Your task to perform on an android device: turn on improve location accuracy Image 0: 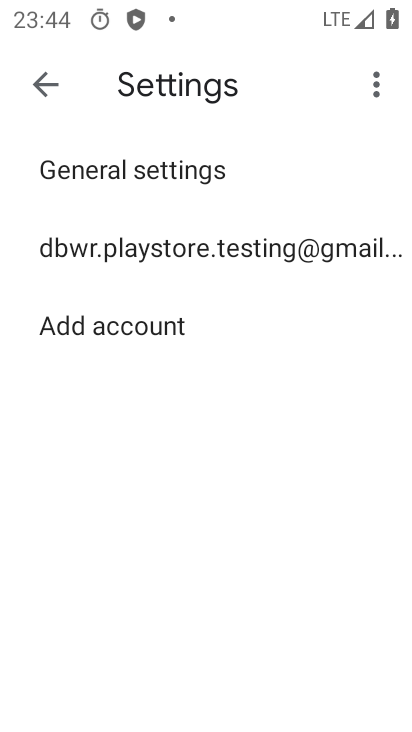
Step 0: press home button
Your task to perform on an android device: turn on improve location accuracy Image 1: 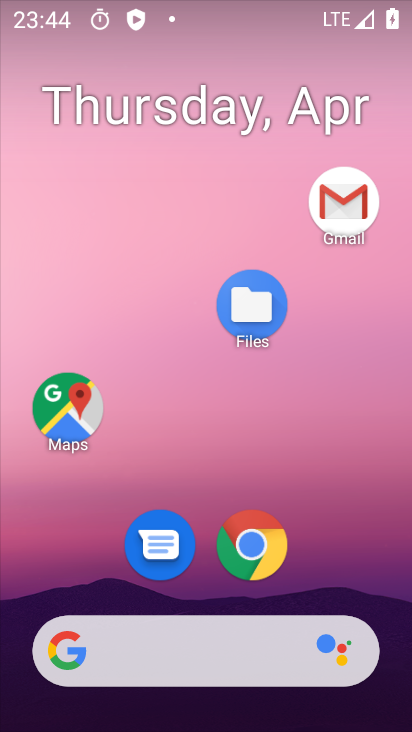
Step 1: drag from (329, 492) to (270, 11)
Your task to perform on an android device: turn on improve location accuracy Image 2: 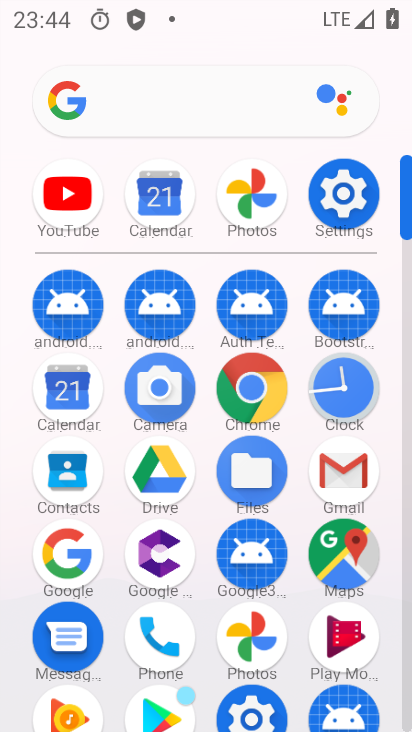
Step 2: click (335, 203)
Your task to perform on an android device: turn on improve location accuracy Image 3: 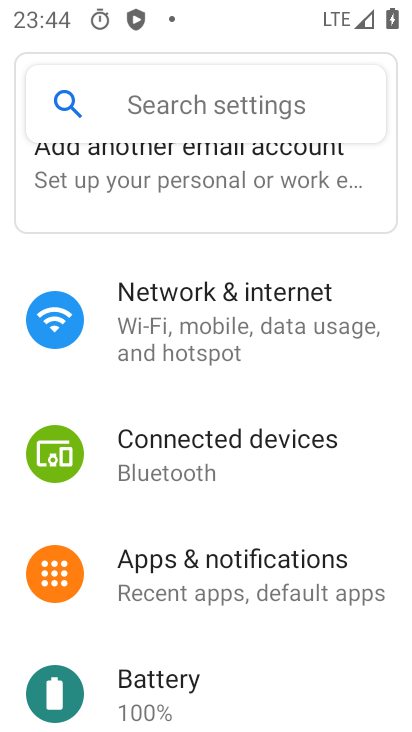
Step 3: drag from (241, 540) to (280, 173)
Your task to perform on an android device: turn on improve location accuracy Image 4: 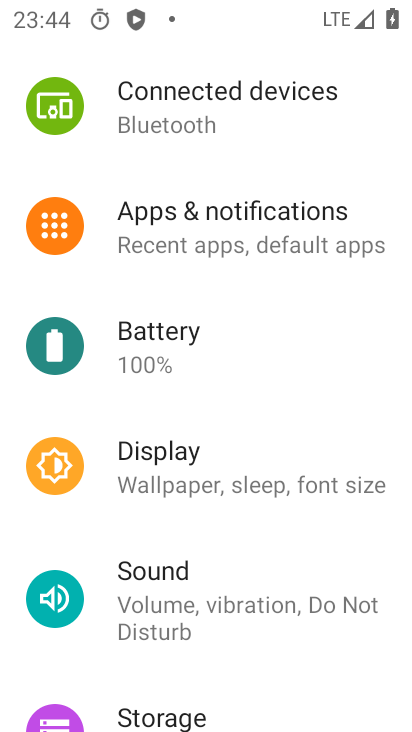
Step 4: drag from (254, 566) to (252, 214)
Your task to perform on an android device: turn on improve location accuracy Image 5: 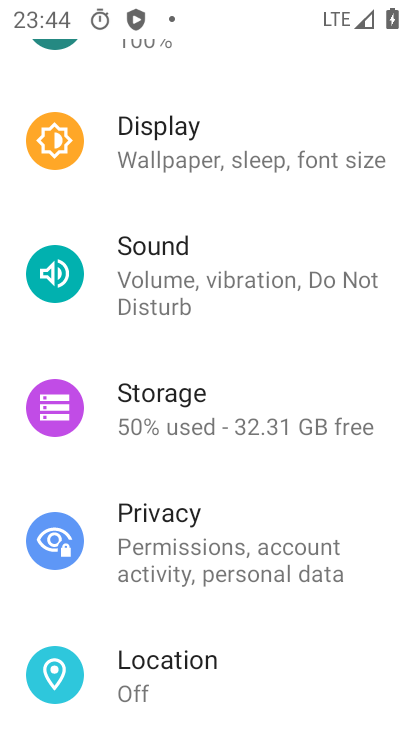
Step 5: click (206, 658)
Your task to perform on an android device: turn on improve location accuracy Image 6: 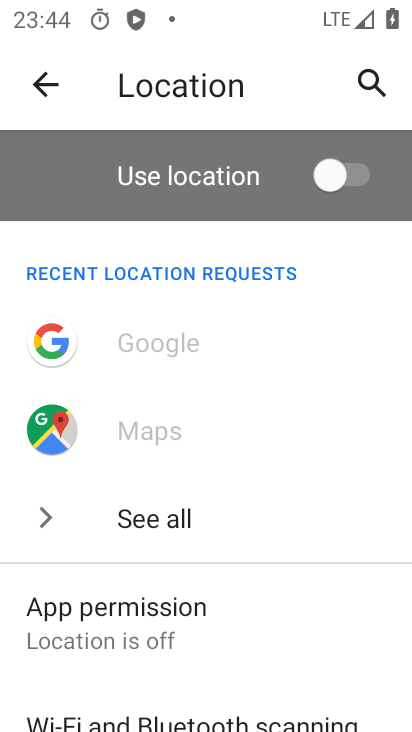
Step 6: drag from (255, 432) to (251, 163)
Your task to perform on an android device: turn on improve location accuracy Image 7: 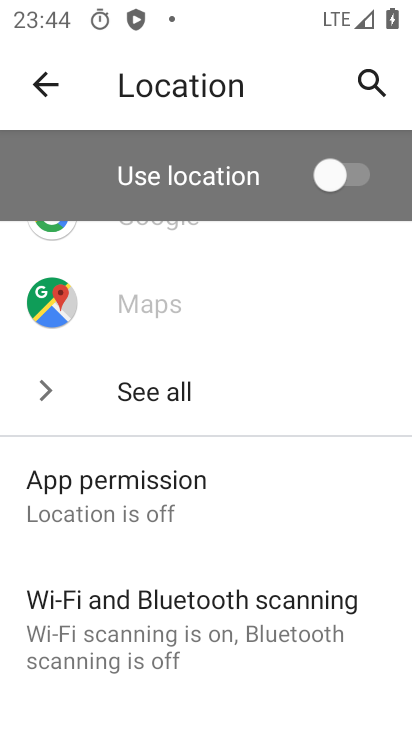
Step 7: drag from (253, 551) to (259, 156)
Your task to perform on an android device: turn on improve location accuracy Image 8: 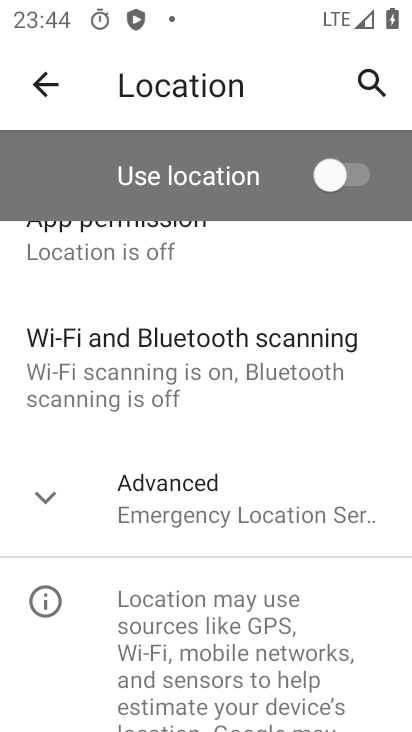
Step 8: click (142, 507)
Your task to perform on an android device: turn on improve location accuracy Image 9: 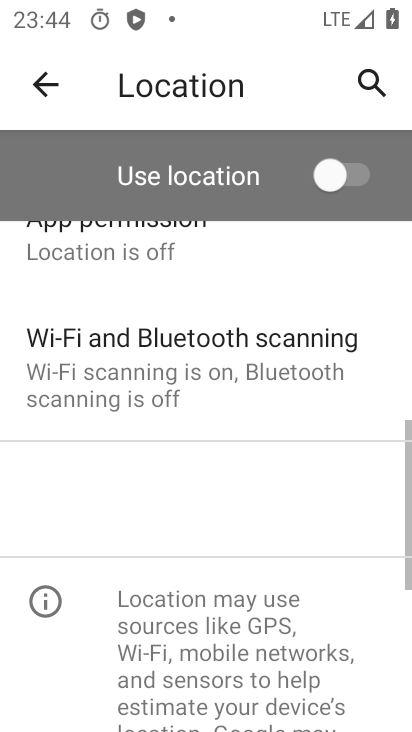
Step 9: task complete